Your task to perform on an android device: toggle location history Image 0: 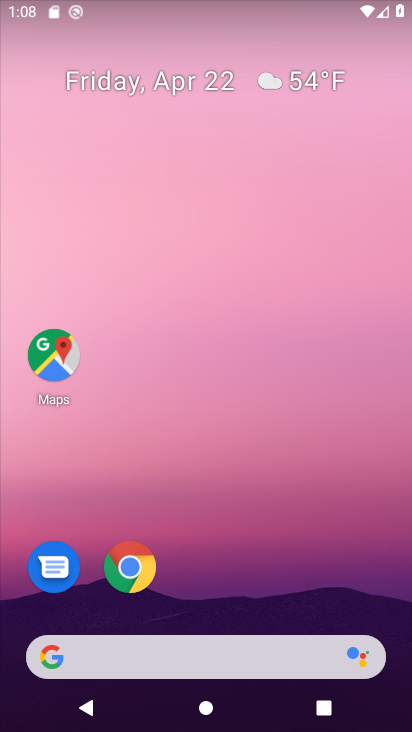
Step 0: drag from (206, 521) to (222, 109)
Your task to perform on an android device: toggle location history Image 1: 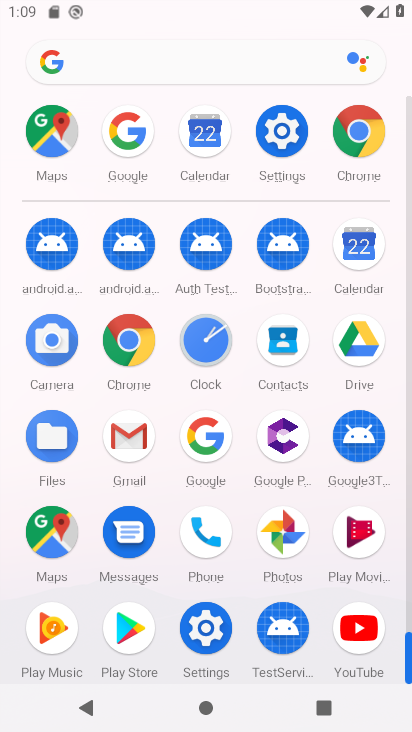
Step 1: click (277, 146)
Your task to perform on an android device: toggle location history Image 2: 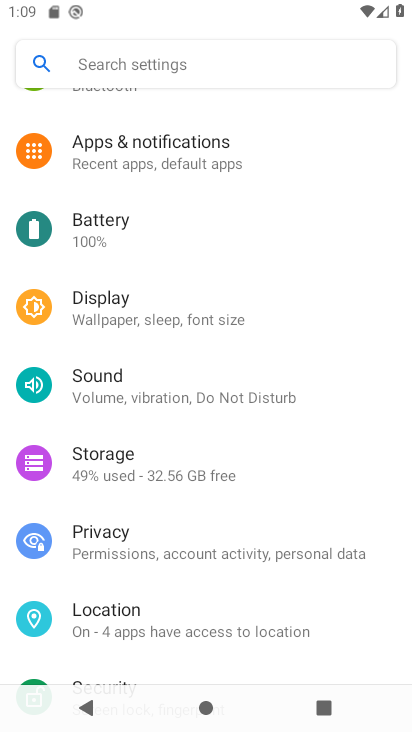
Step 2: click (146, 622)
Your task to perform on an android device: toggle location history Image 3: 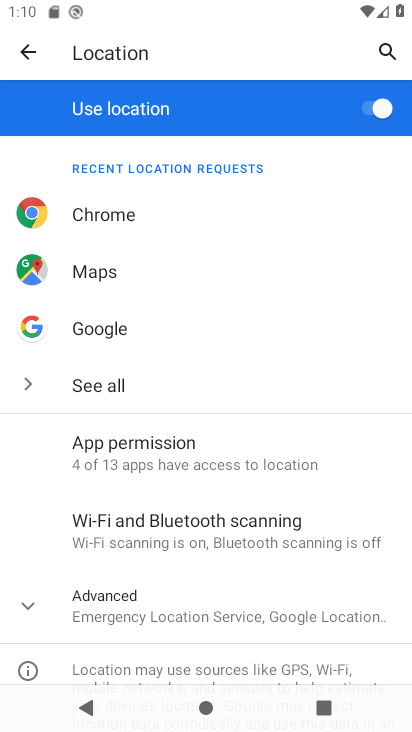
Step 3: click (193, 607)
Your task to perform on an android device: toggle location history Image 4: 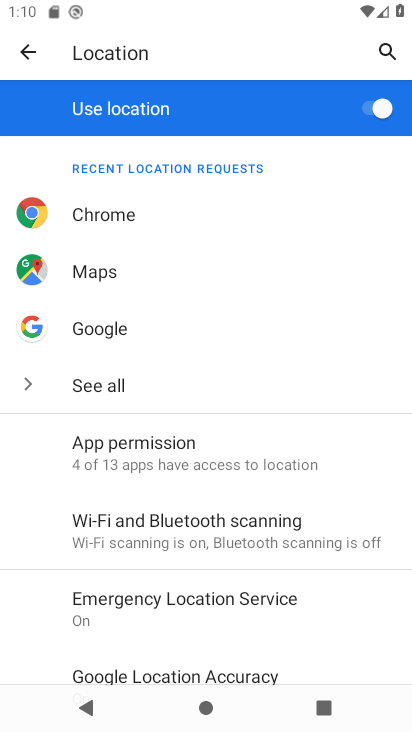
Step 4: drag from (191, 602) to (191, 441)
Your task to perform on an android device: toggle location history Image 5: 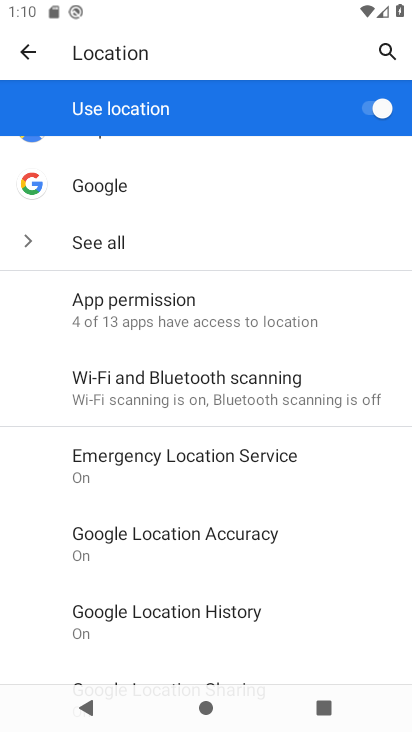
Step 5: drag from (175, 593) to (183, 379)
Your task to perform on an android device: toggle location history Image 6: 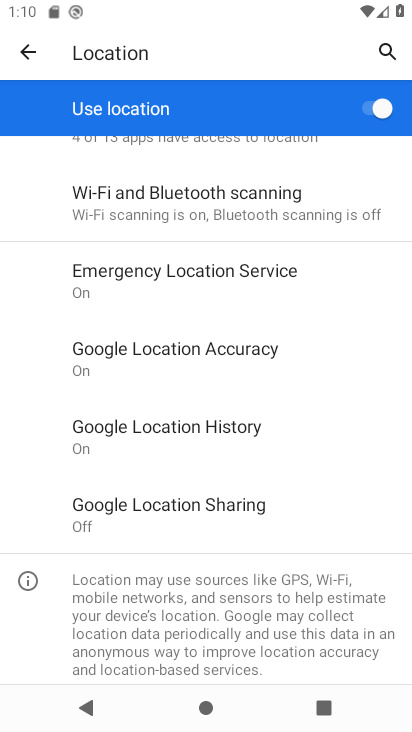
Step 6: click (216, 443)
Your task to perform on an android device: toggle location history Image 7: 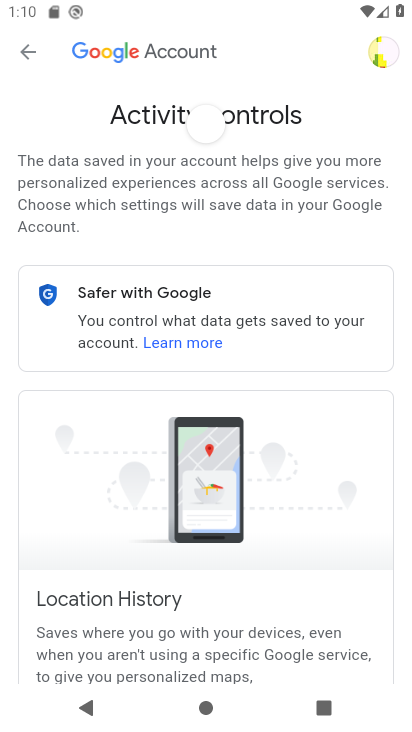
Step 7: drag from (274, 564) to (197, 392)
Your task to perform on an android device: toggle location history Image 8: 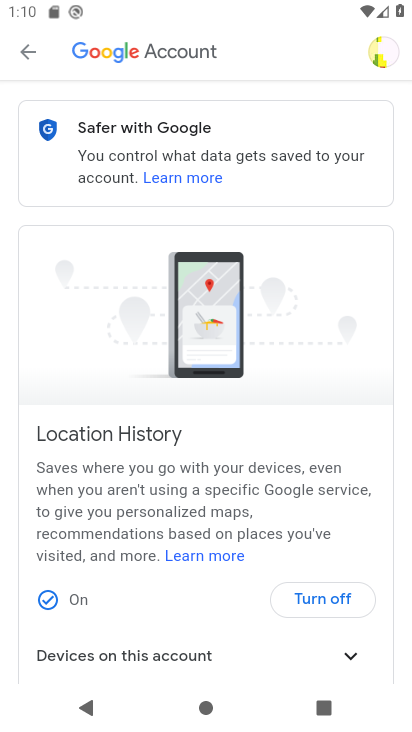
Step 8: click (319, 611)
Your task to perform on an android device: toggle location history Image 9: 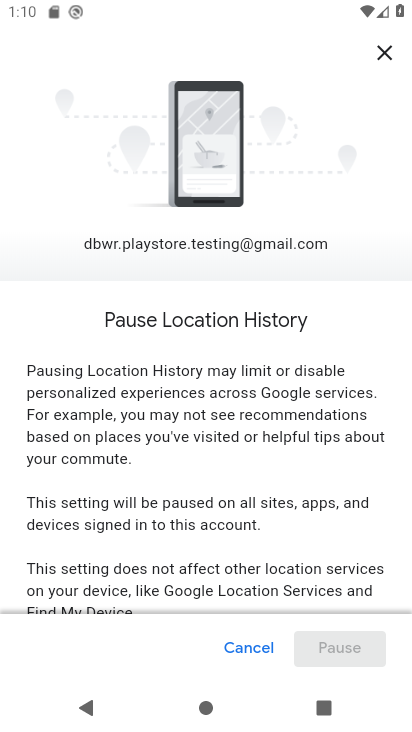
Step 9: drag from (274, 523) to (256, 85)
Your task to perform on an android device: toggle location history Image 10: 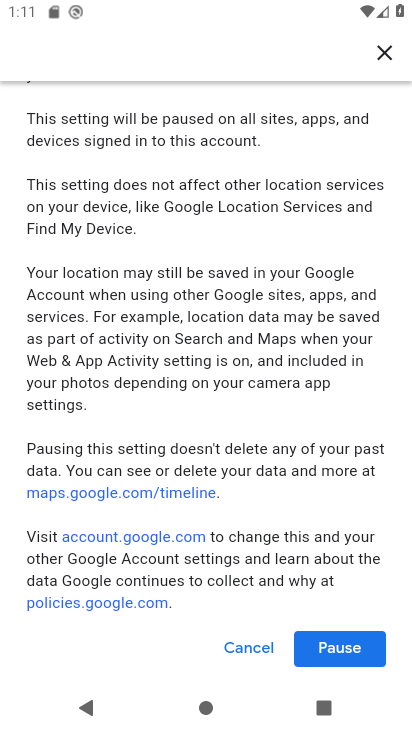
Step 10: drag from (219, 459) to (225, 169)
Your task to perform on an android device: toggle location history Image 11: 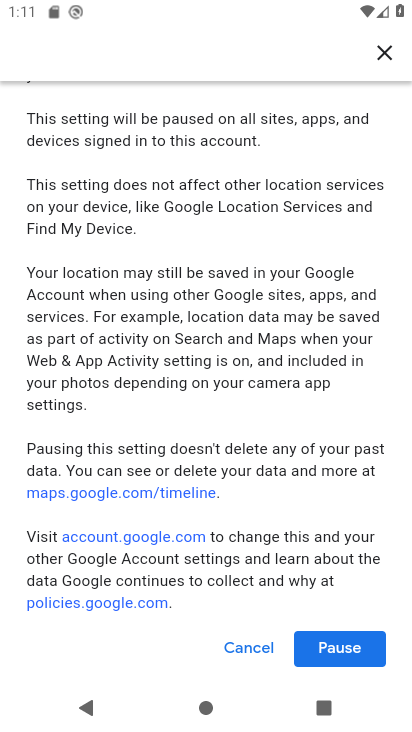
Step 11: click (358, 648)
Your task to perform on an android device: toggle location history Image 12: 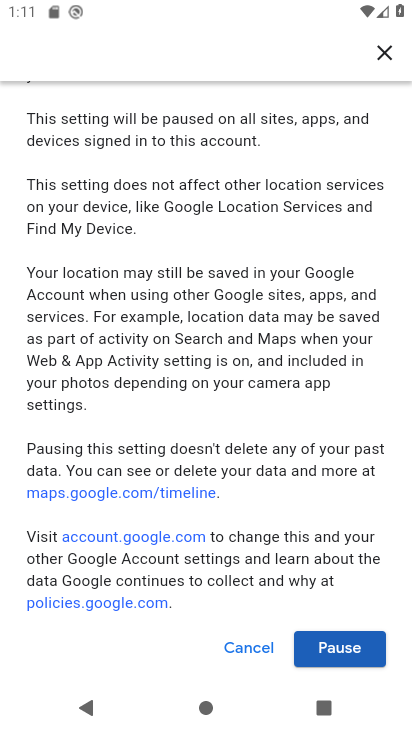
Step 12: click (331, 653)
Your task to perform on an android device: toggle location history Image 13: 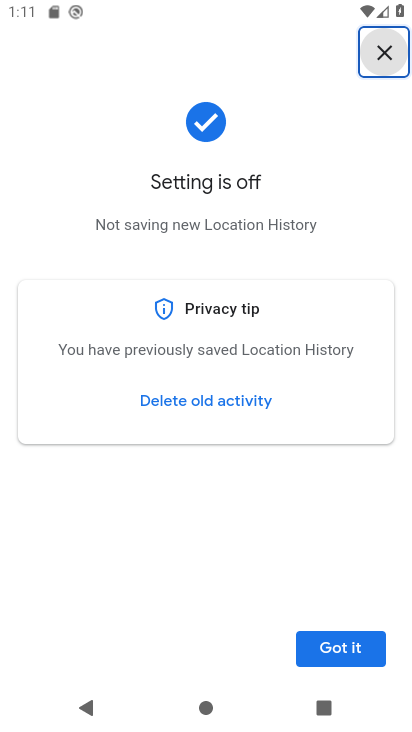
Step 13: click (342, 644)
Your task to perform on an android device: toggle location history Image 14: 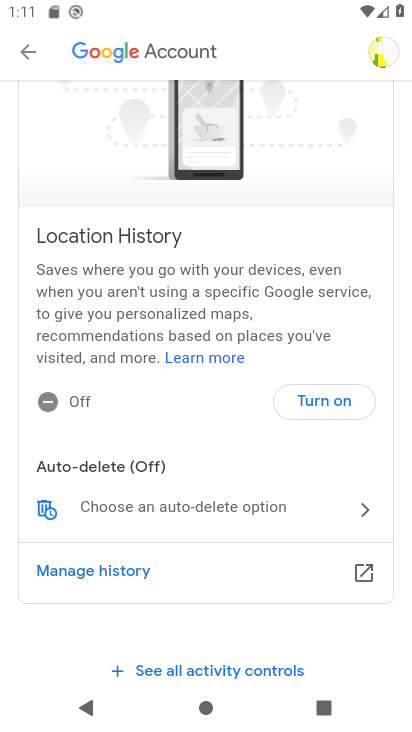
Step 14: task complete